Your task to perform on an android device: Open Google Image 0: 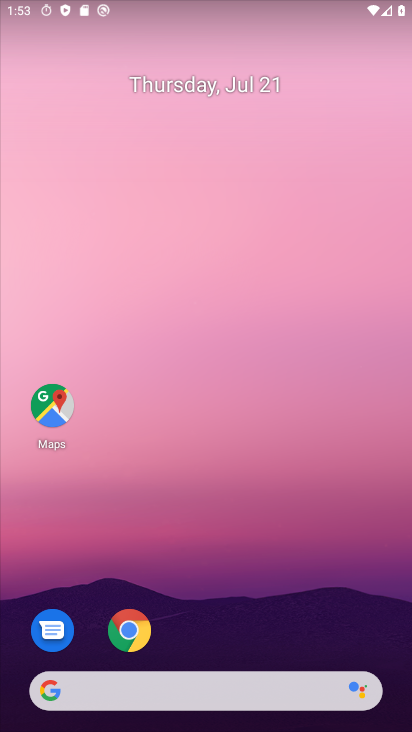
Step 0: drag from (200, 553) to (204, 216)
Your task to perform on an android device: Open Google Image 1: 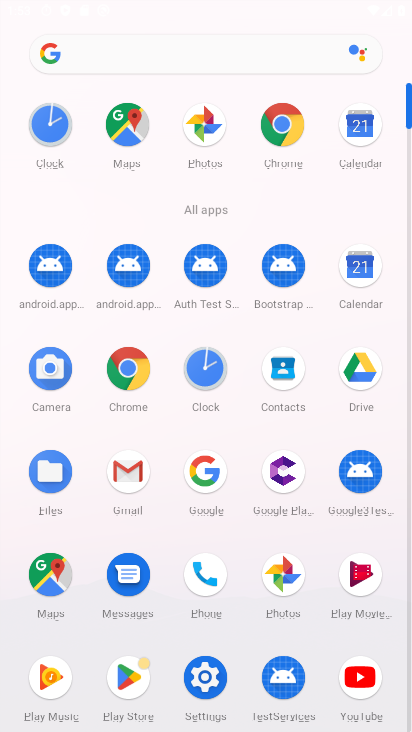
Step 1: click (204, 471)
Your task to perform on an android device: Open Google Image 2: 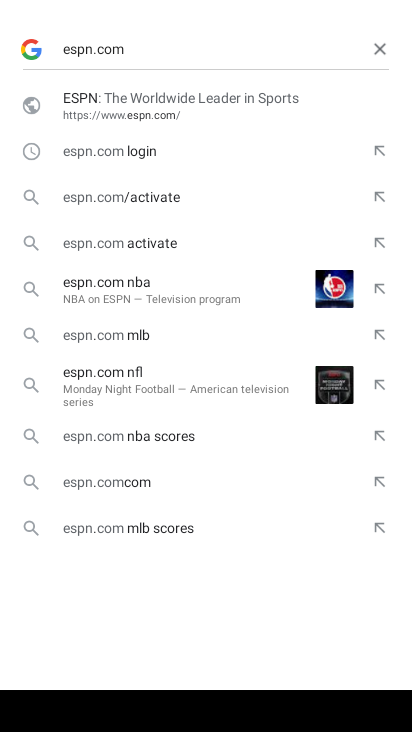
Step 2: click (375, 49)
Your task to perform on an android device: Open Google Image 3: 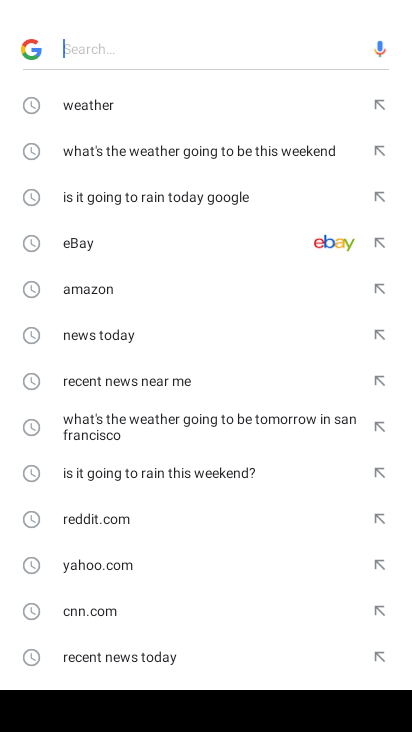
Step 3: task complete